Your task to perform on an android device: Go to Yahoo.com Image 0: 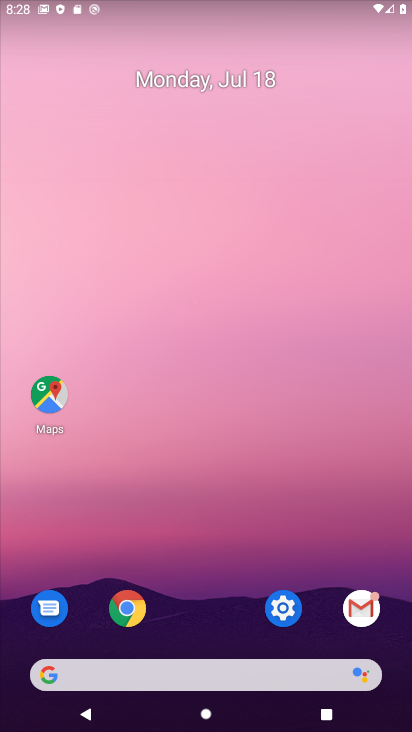
Step 0: press home button
Your task to perform on an android device: Go to Yahoo.com Image 1: 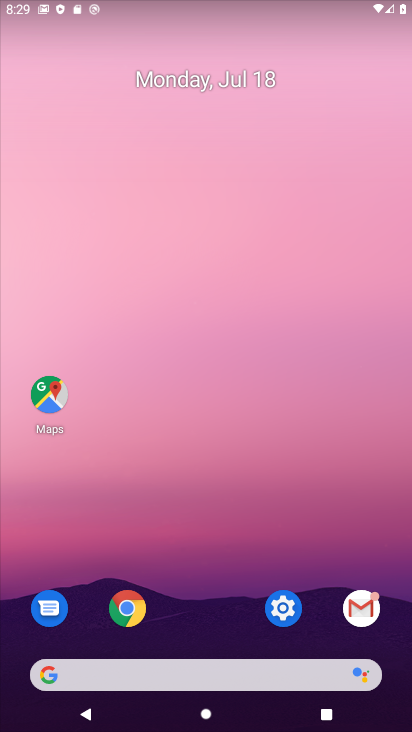
Step 1: click (124, 620)
Your task to perform on an android device: Go to Yahoo.com Image 2: 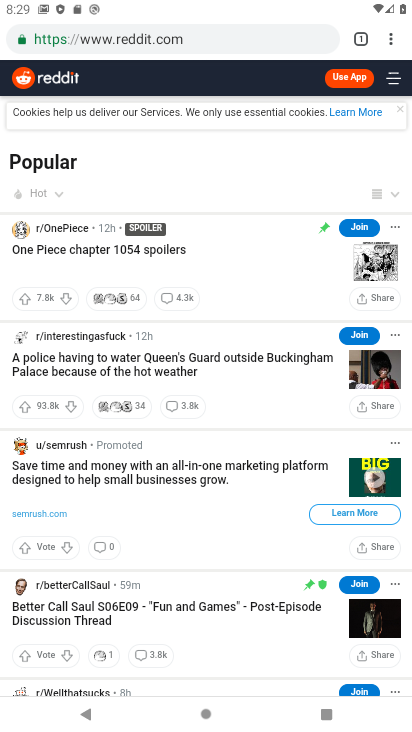
Step 2: click (356, 45)
Your task to perform on an android device: Go to Yahoo.com Image 3: 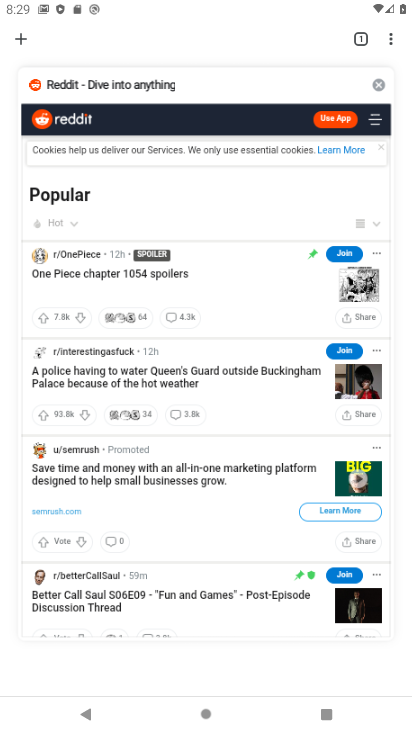
Step 3: click (28, 41)
Your task to perform on an android device: Go to Yahoo.com Image 4: 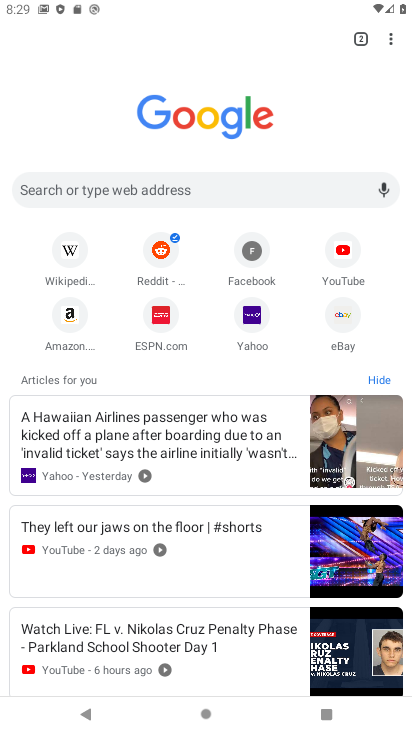
Step 4: click (254, 325)
Your task to perform on an android device: Go to Yahoo.com Image 5: 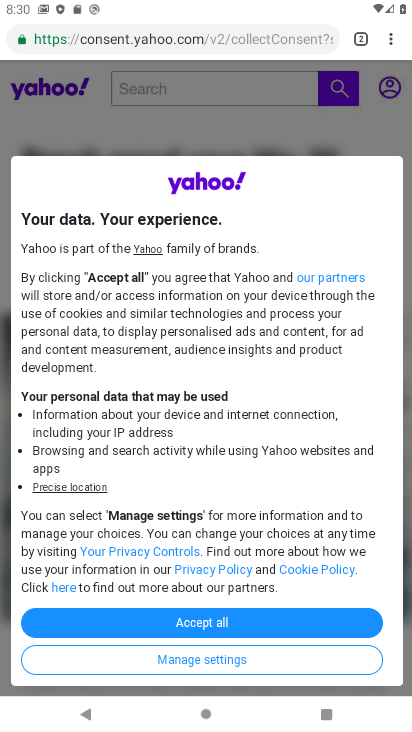
Step 5: click (217, 624)
Your task to perform on an android device: Go to Yahoo.com Image 6: 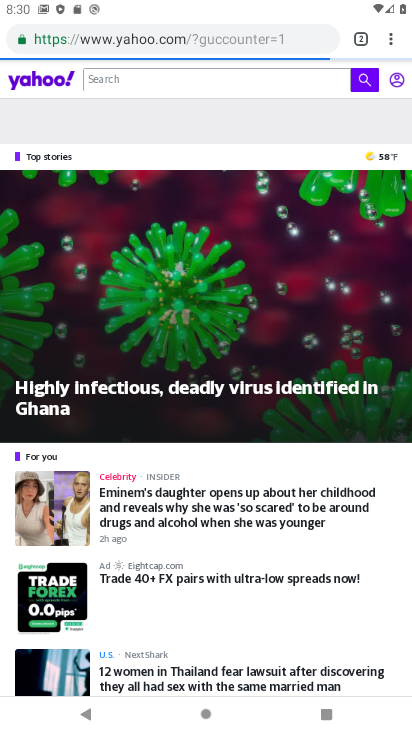
Step 6: task complete